Your task to perform on an android device: find snoozed emails in the gmail app Image 0: 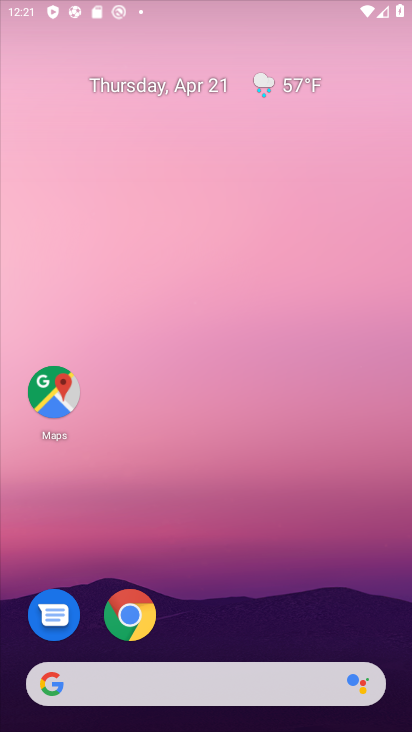
Step 0: drag from (306, 604) to (221, 236)
Your task to perform on an android device: find snoozed emails in the gmail app Image 1: 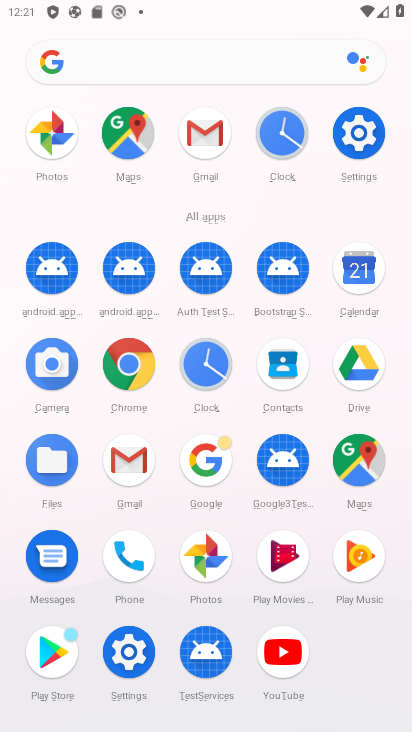
Step 1: click (204, 134)
Your task to perform on an android device: find snoozed emails in the gmail app Image 2: 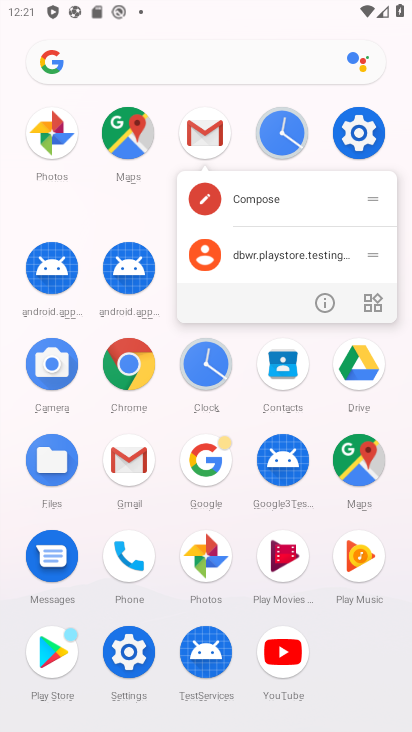
Step 2: click (213, 141)
Your task to perform on an android device: find snoozed emails in the gmail app Image 3: 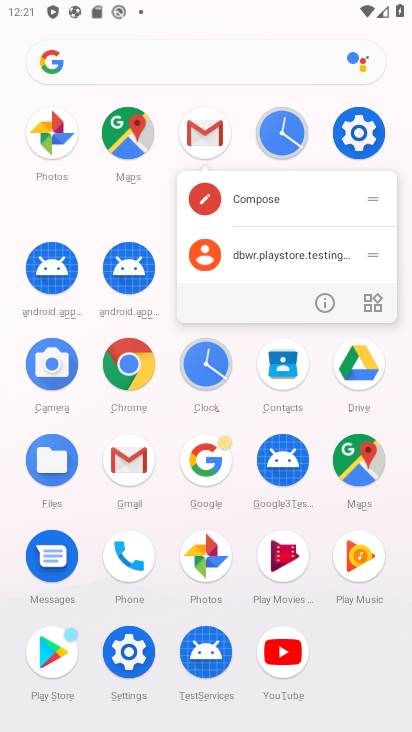
Step 3: click (193, 128)
Your task to perform on an android device: find snoozed emails in the gmail app Image 4: 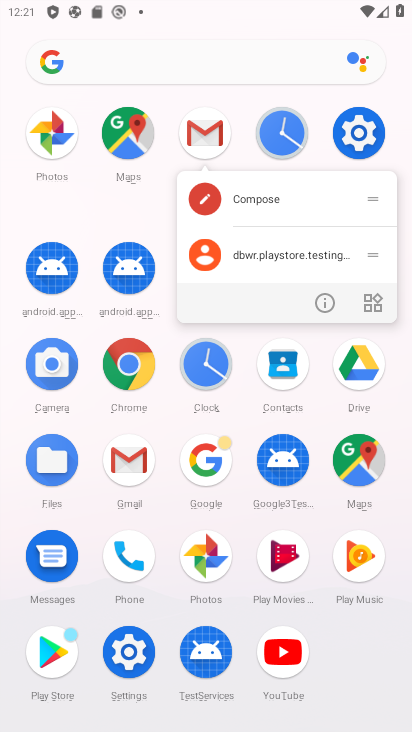
Step 4: click (200, 134)
Your task to perform on an android device: find snoozed emails in the gmail app Image 5: 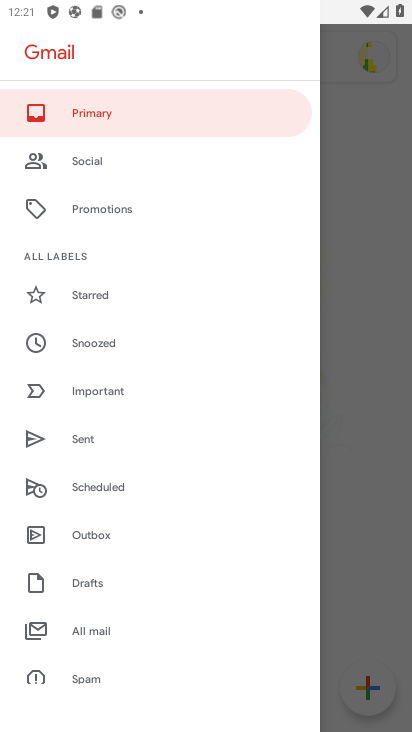
Step 5: press back button
Your task to perform on an android device: find snoozed emails in the gmail app Image 6: 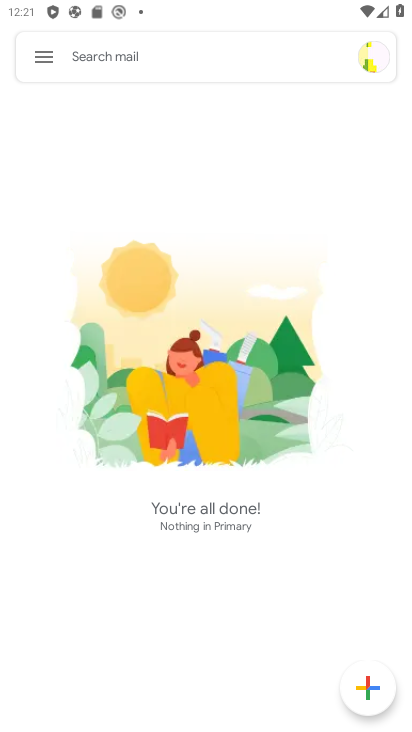
Step 6: click (44, 55)
Your task to perform on an android device: find snoozed emails in the gmail app Image 7: 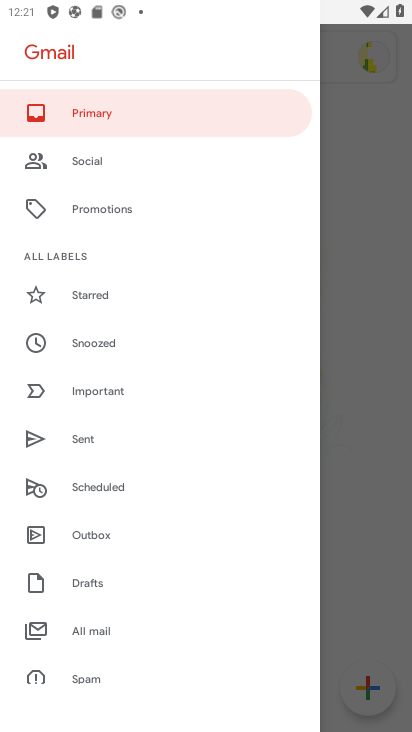
Step 7: click (100, 342)
Your task to perform on an android device: find snoozed emails in the gmail app Image 8: 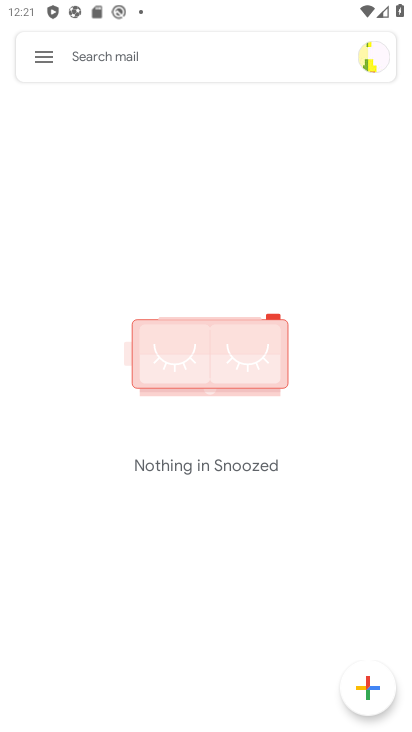
Step 8: task complete